Your task to perform on an android device: turn on airplane mode Image 0: 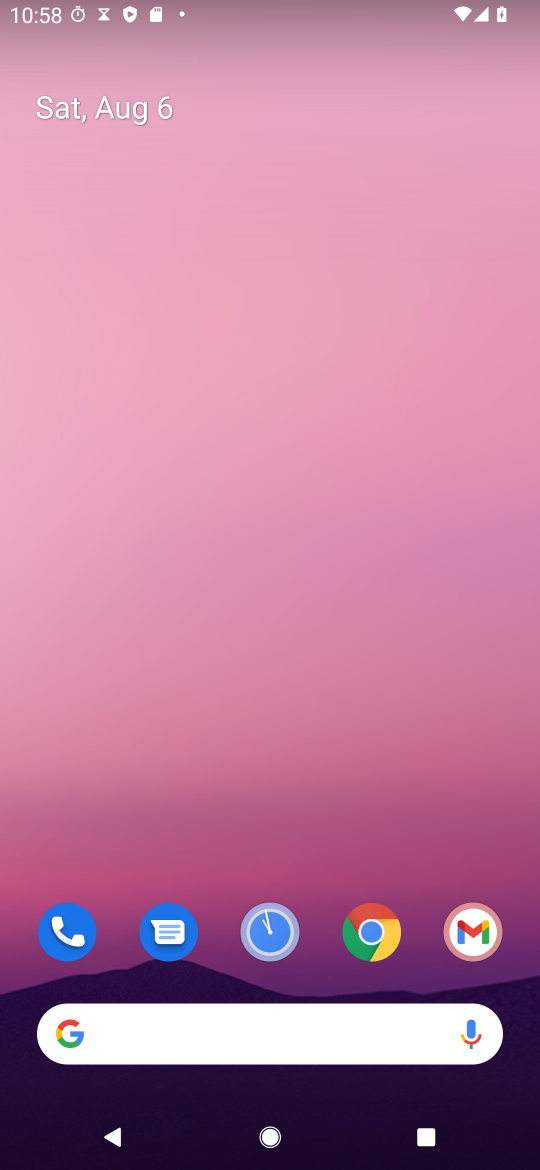
Step 0: drag from (241, 1018) to (375, 220)
Your task to perform on an android device: turn on airplane mode Image 1: 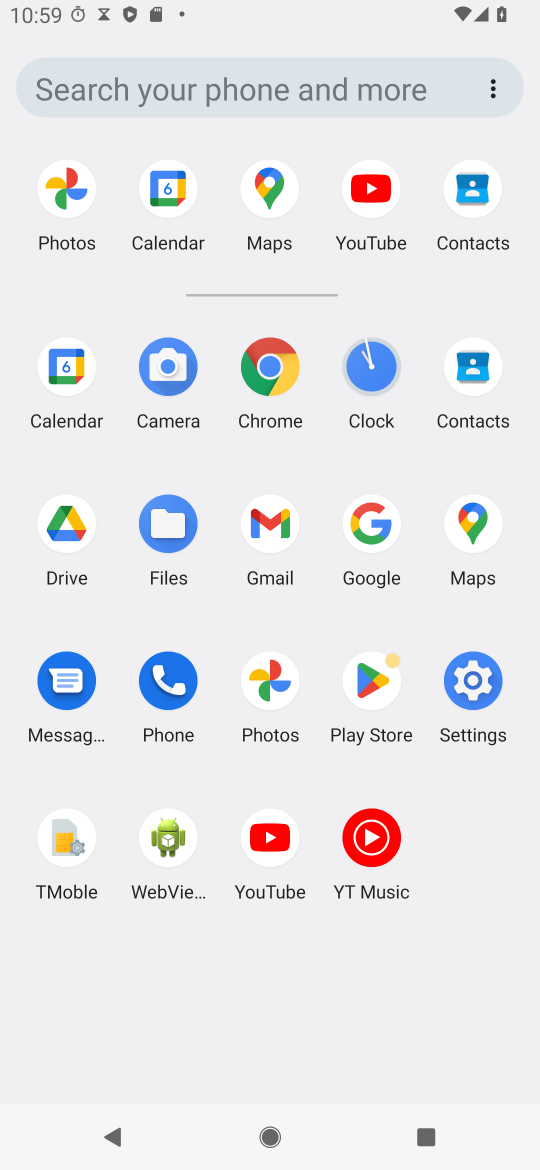
Step 1: click (472, 679)
Your task to perform on an android device: turn on airplane mode Image 2: 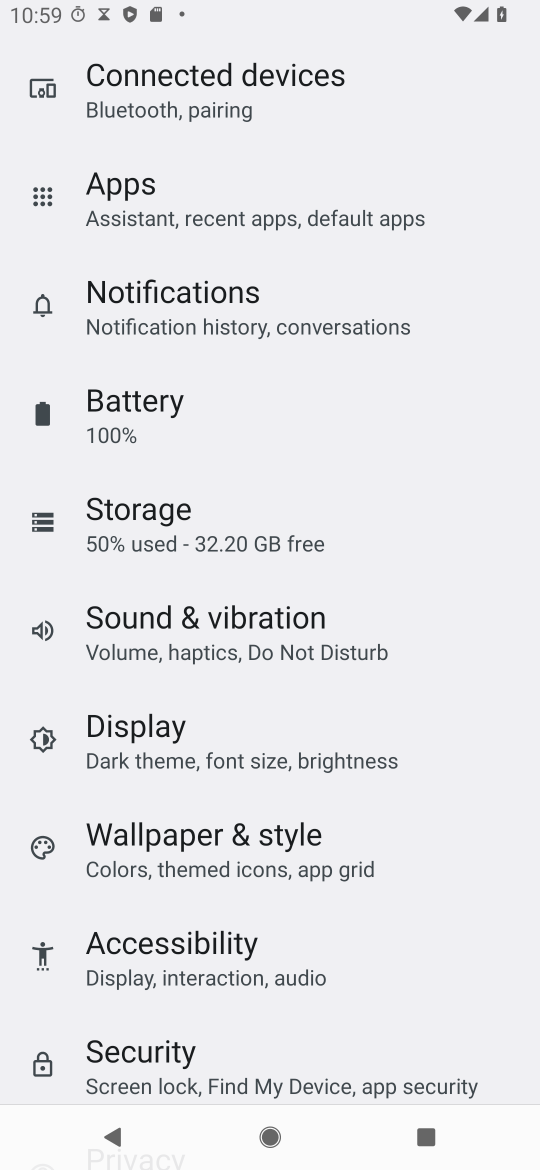
Step 2: drag from (232, 165) to (186, 412)
Your task to perform on an android device: turn on airplane mode Image 3: 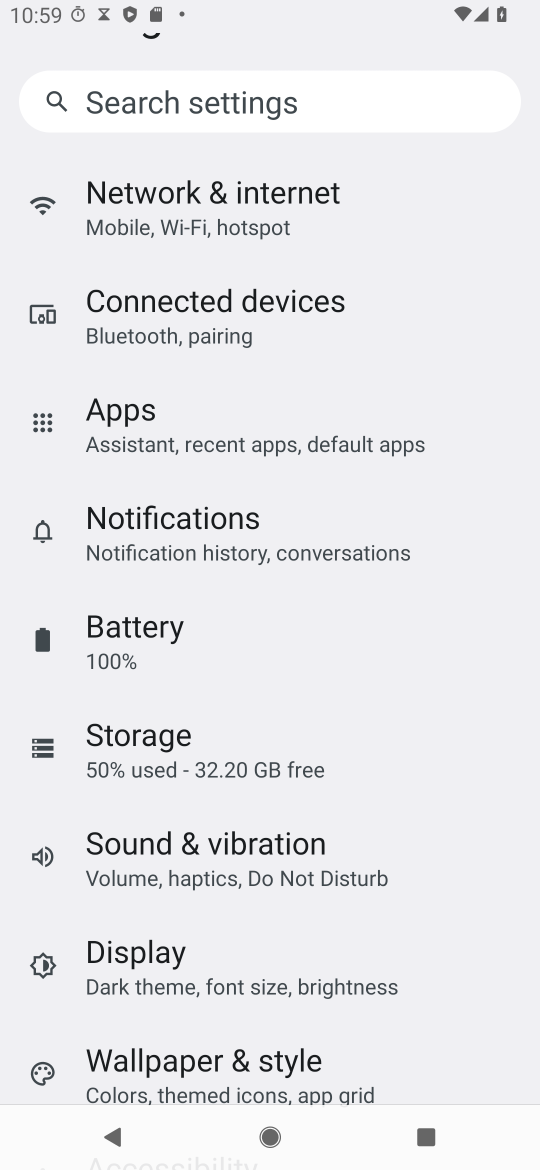
Step 3: click (238, 211)
Your task to perform on an android device: turn on airplane mode Image 4: 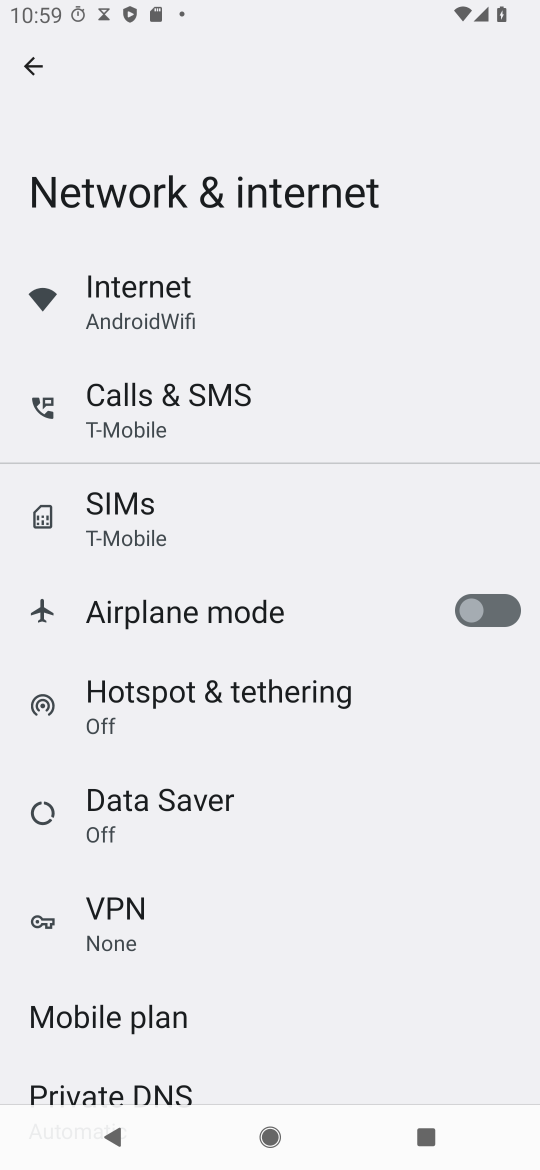
Step 4: click (469, 614)
Your task to perform on an android device: turn on airplane mode Image 5: 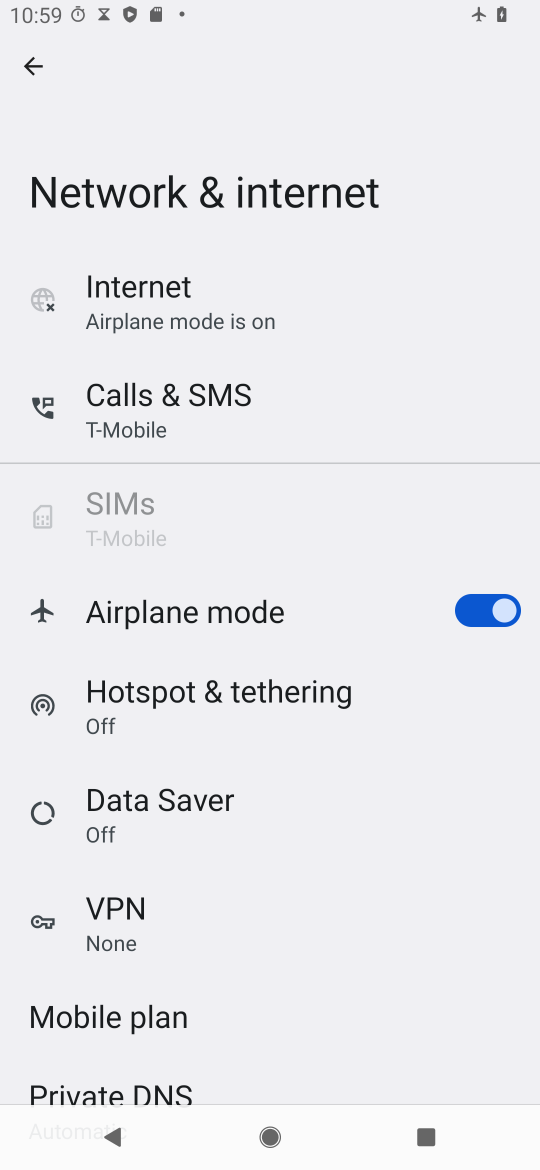
Step 5: task complete